Your task to perform on an android device: Open Google Chrome and open the bookmarks view Image 0: 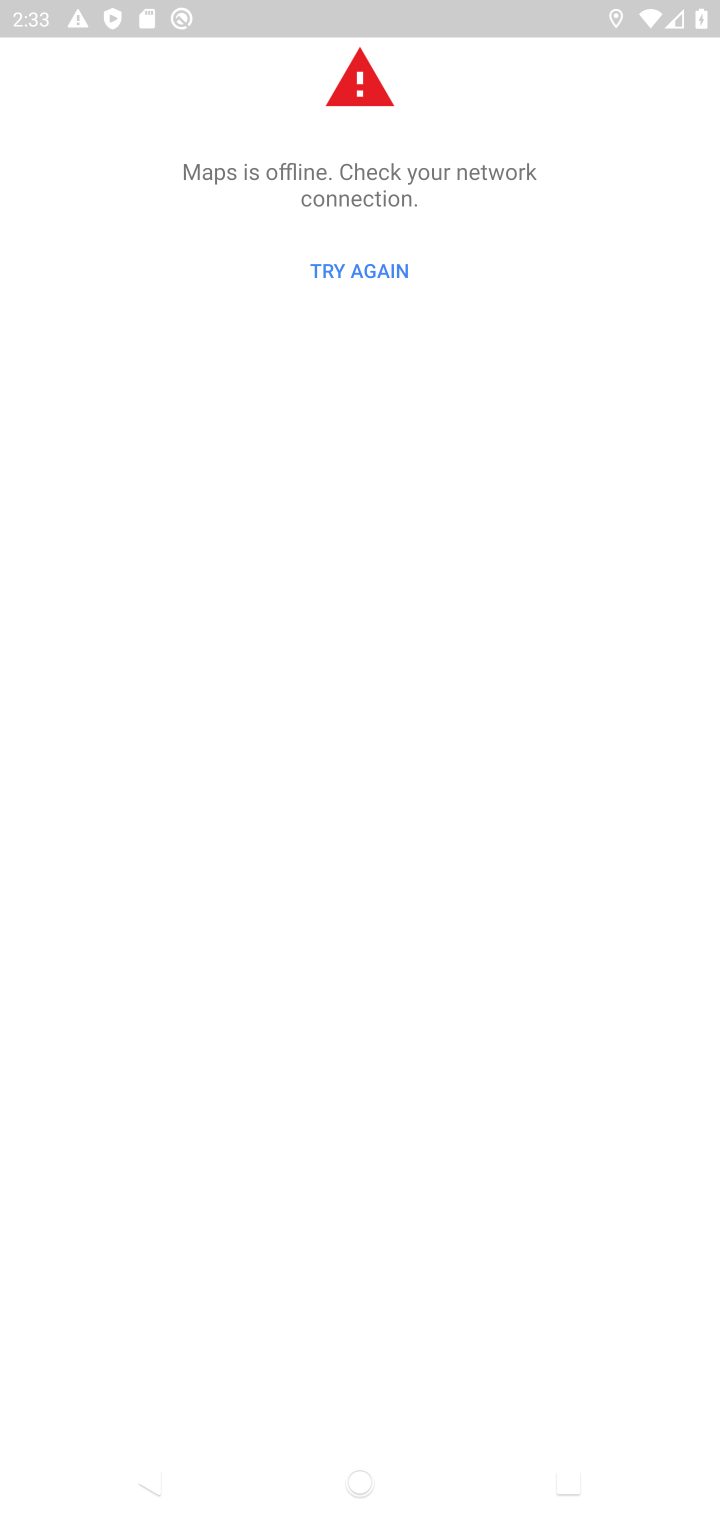
Step 0: press home button
Your task to perform on an android device: Open Google Chrome and open the bookmarks view Image 1: 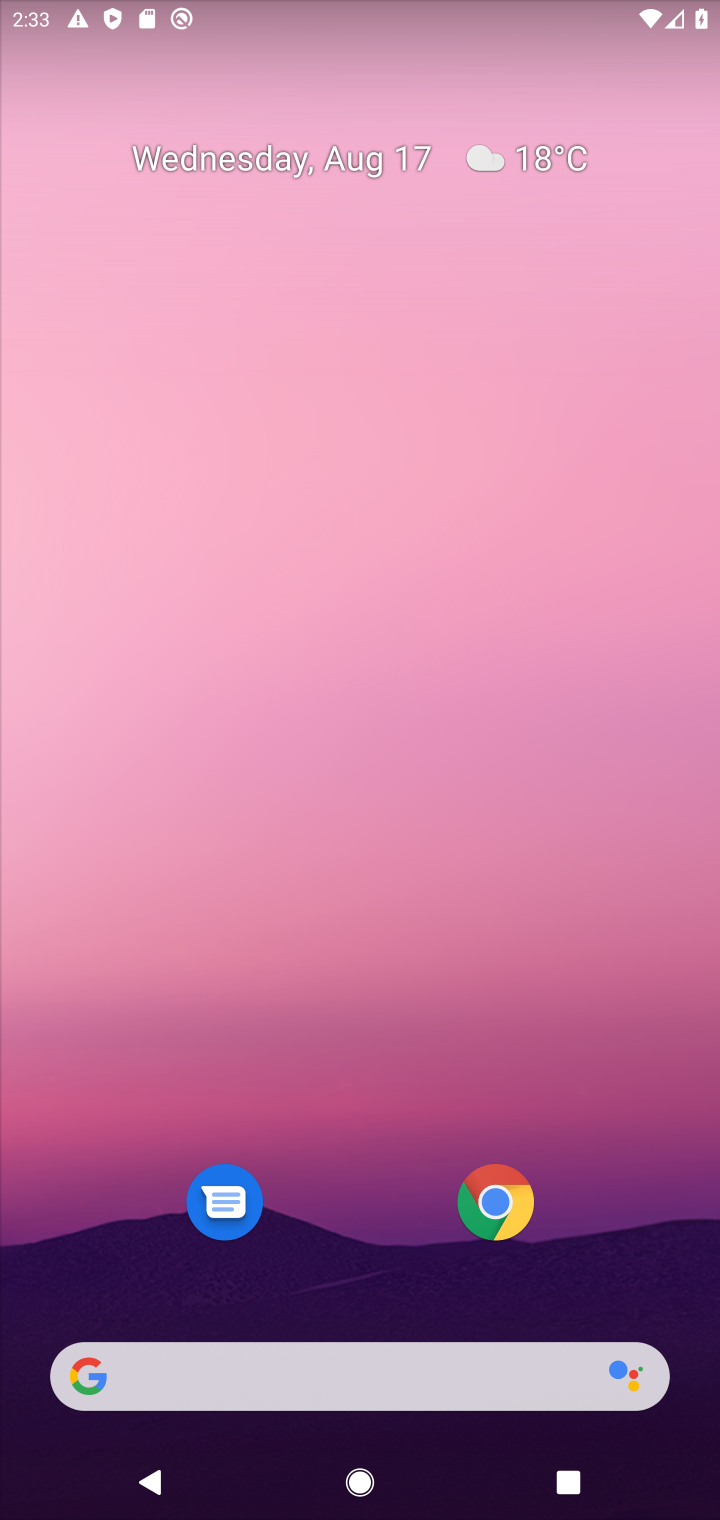
Step 1: click (516, 1208)
Your task to perform on an android device: Open Google Chrome and open the bookmarks view Image 2: 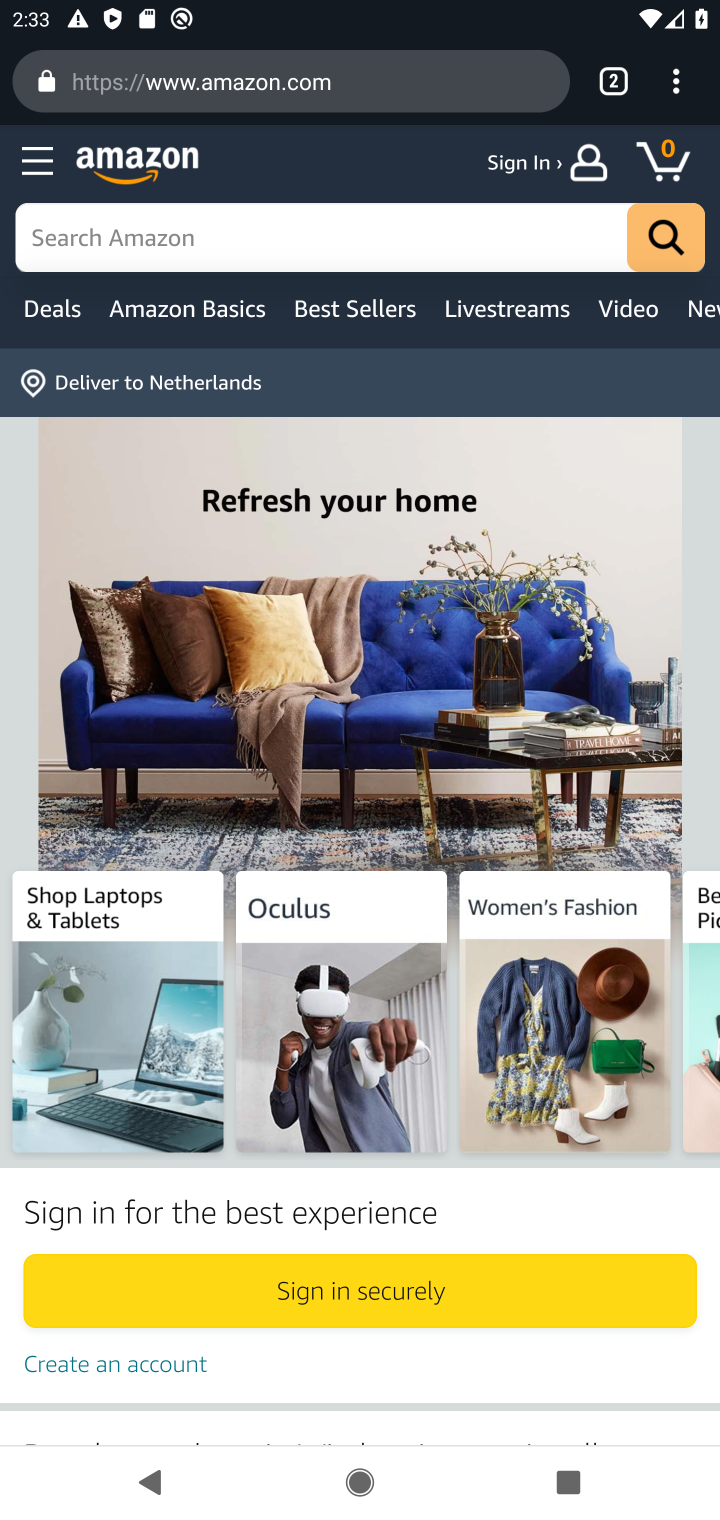
Step 2: click (677, 82)
Your task to perform on an android device: Open Google Chrome and open the bookmarks view Image 3: 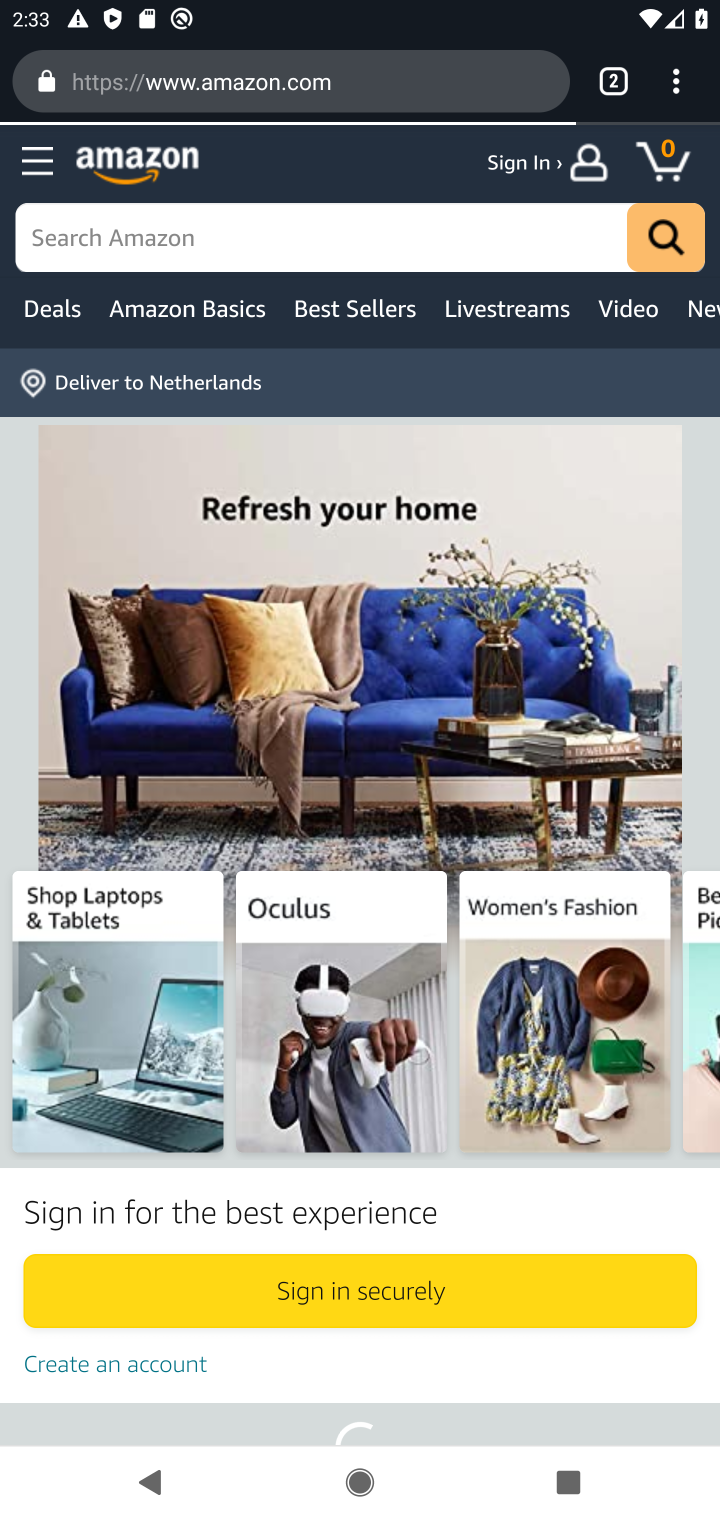
Step 3: click (677, 84)
Your task to perform on an android device: Open Google Chrome and open the bookmarks view Image 4: 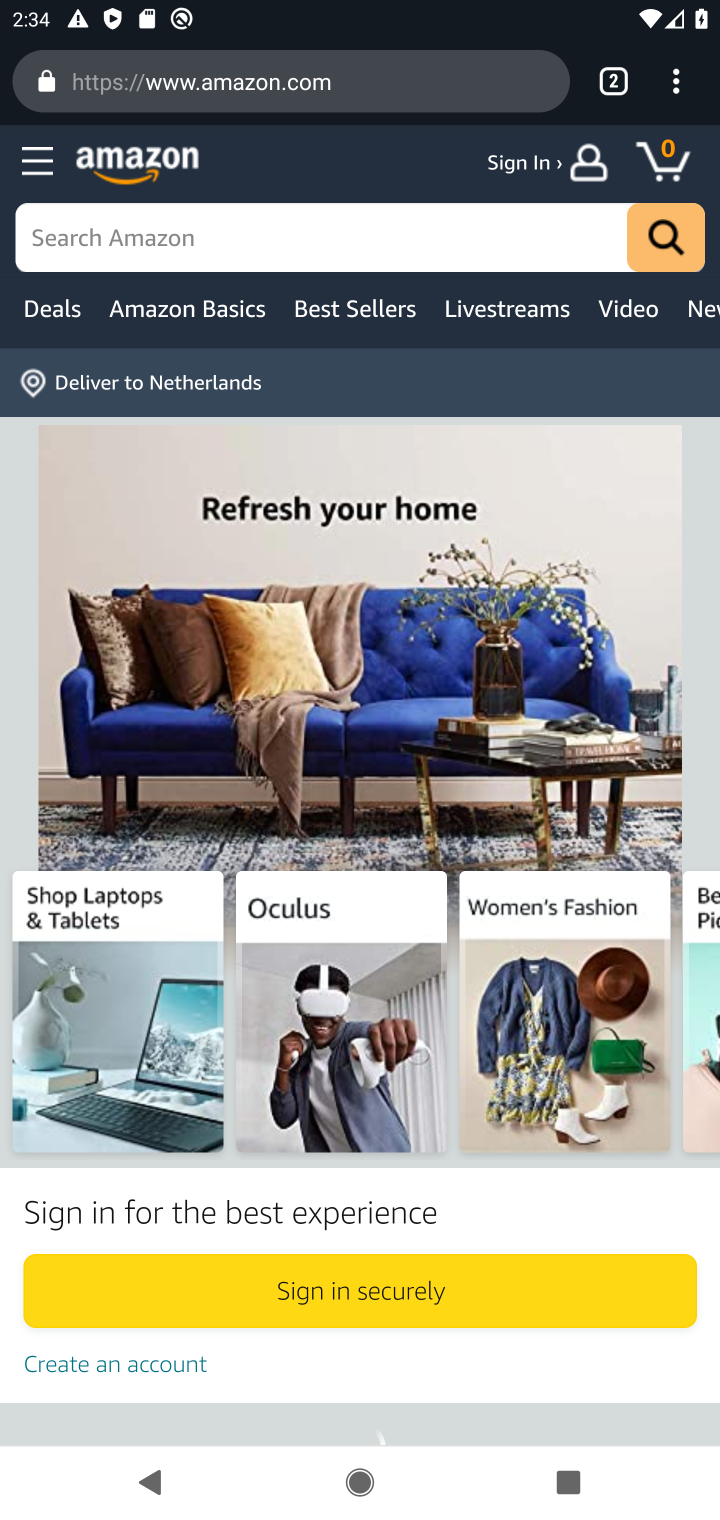
Step 4: click (678, 91)
Your task to perform on an android device: Open Google Chrome and open the bookmarks view Image 5: 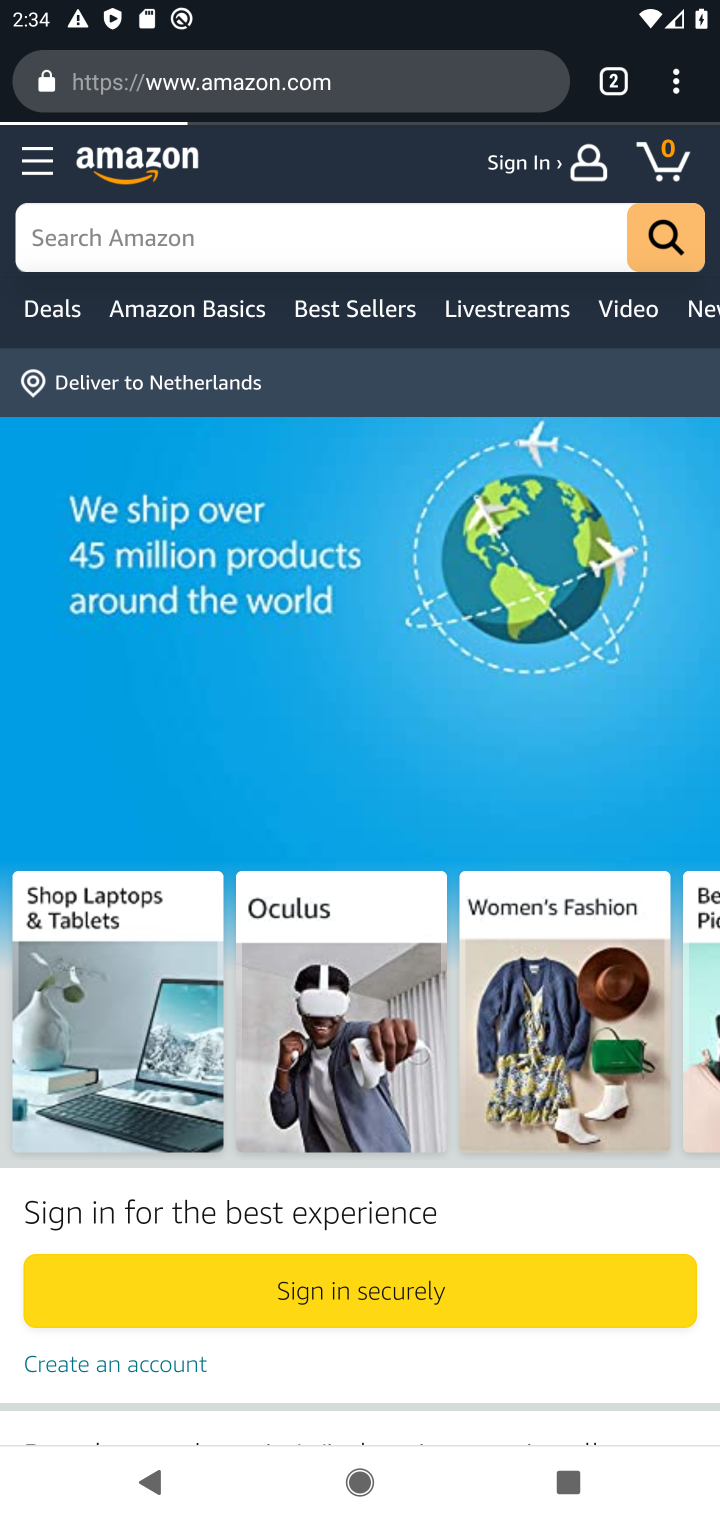
Step 5: click (686, 96)
Your task to perform on an android device: Open Google Chrome and open the bookmarks view Image 6: 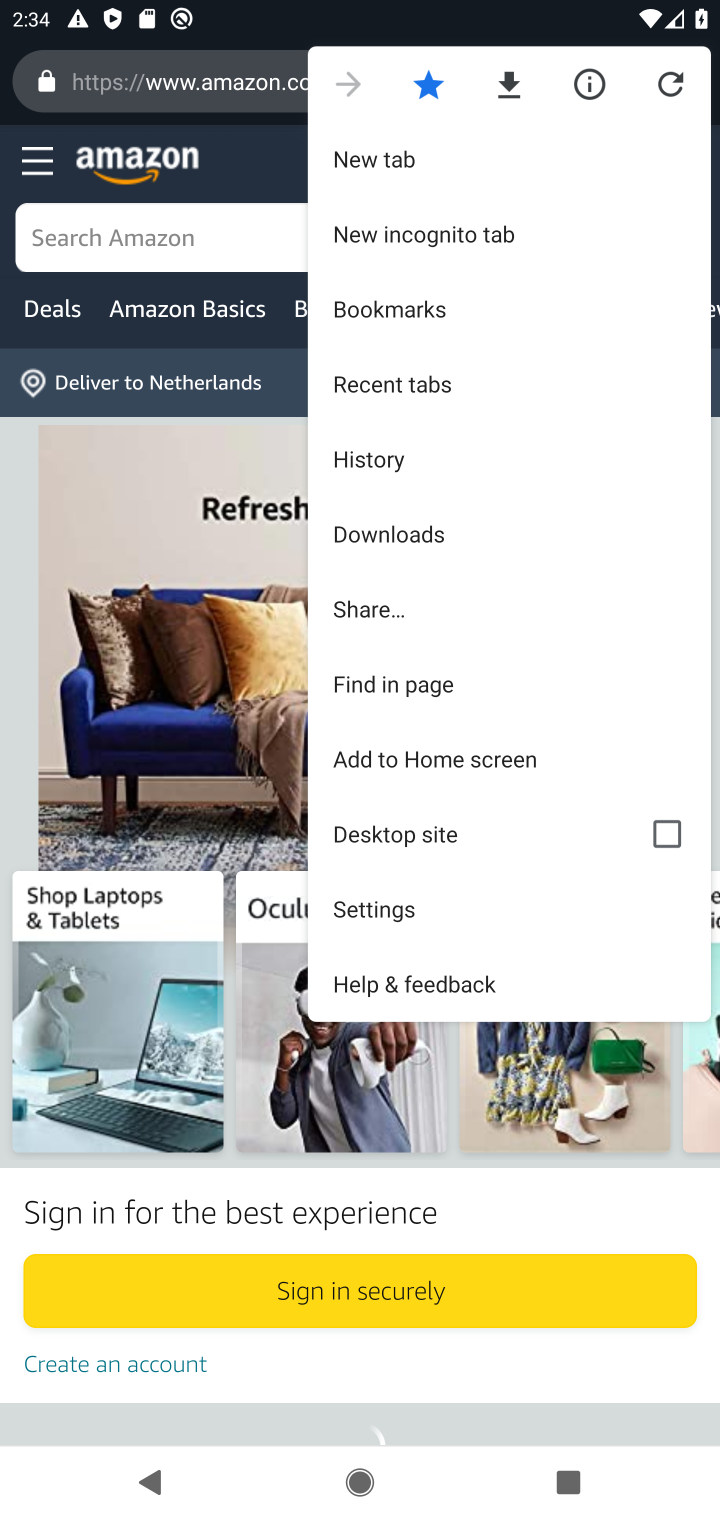
Step 6: click (411, 306)
Your task to perform on an android device: Open Google Chrome and open the bookmarks view Image 7: 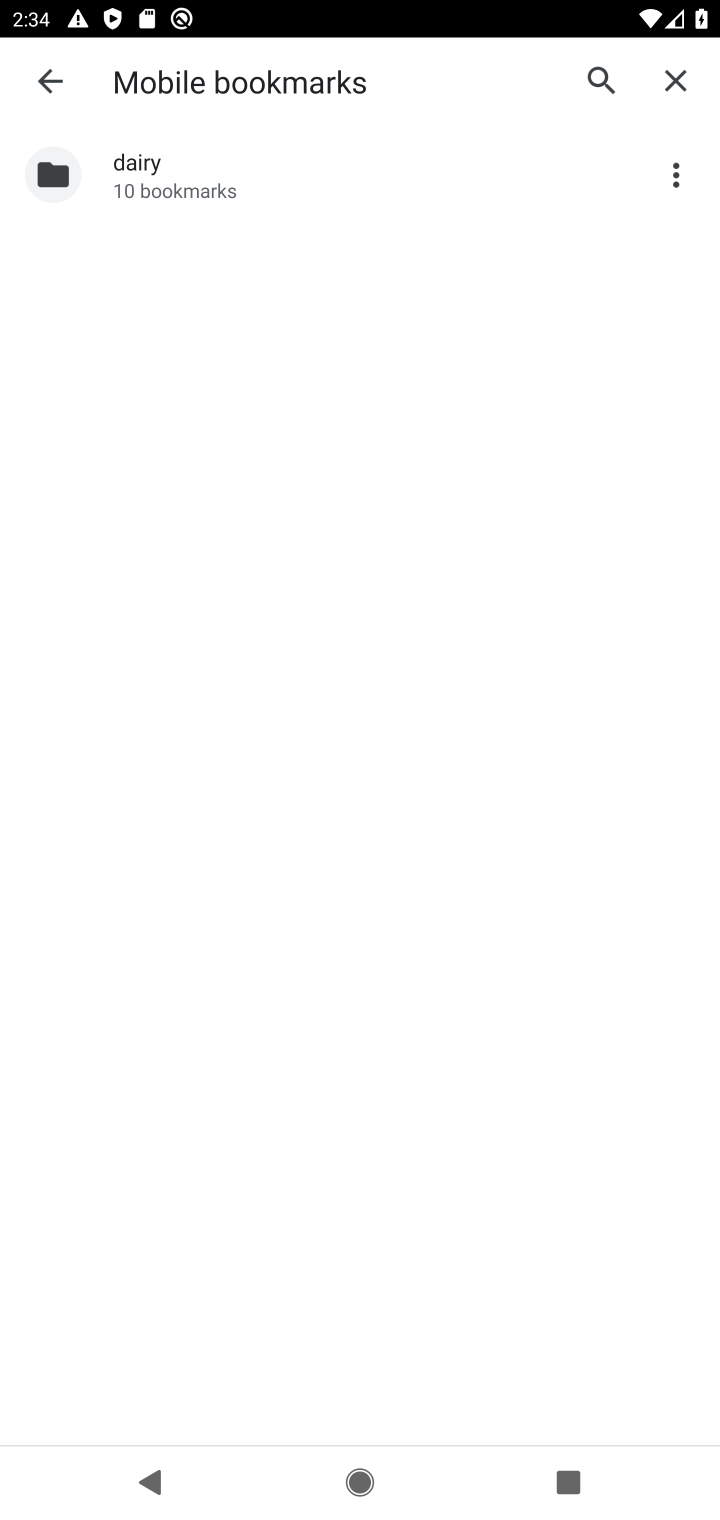
Step 7: click (185, 175)
Your task to perform on an android device: Open Google Chrome and open the bookmarks view Image 8: 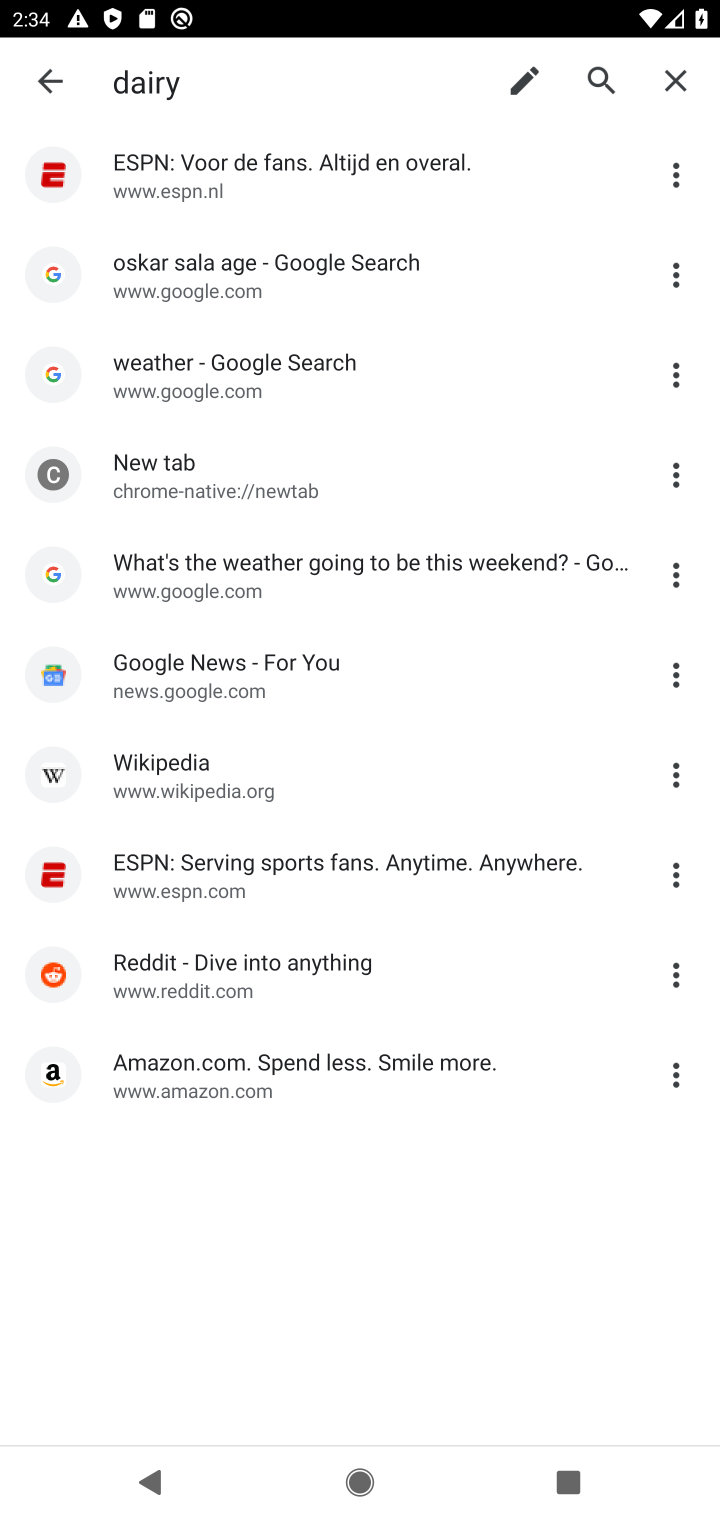
Step 8: task complete